Your task to perform on an android device: clear history in the chrome app Image 0: 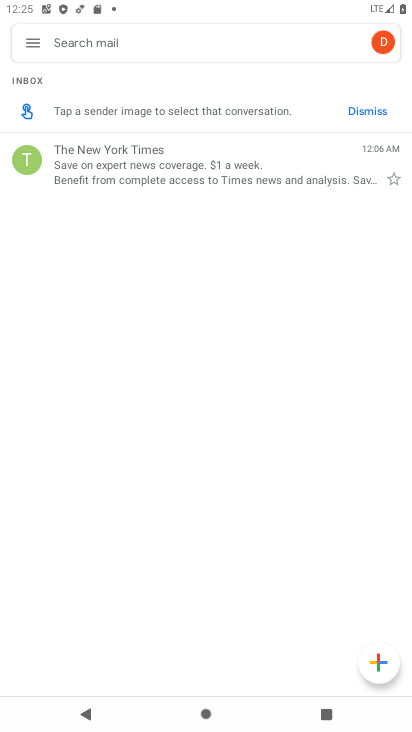
Step 0: press home button
Your task to perform on an android device: clear history in the chrome app Image 1: 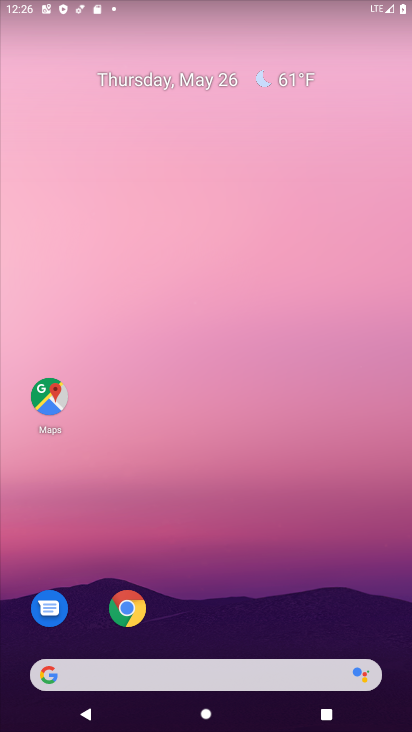
Step 1: click (126, 610)
Your task to perform on an android device: clear history in the chrome app Image 2: 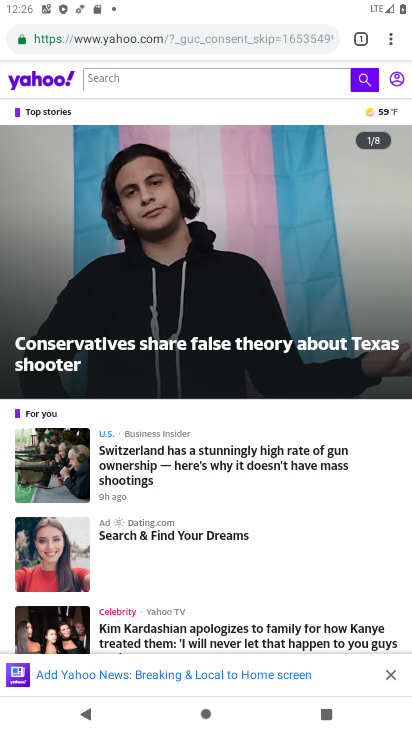
Step 2: click (394, 45)
Your task to perform on an android device: clear history in the chrome app Image 3: 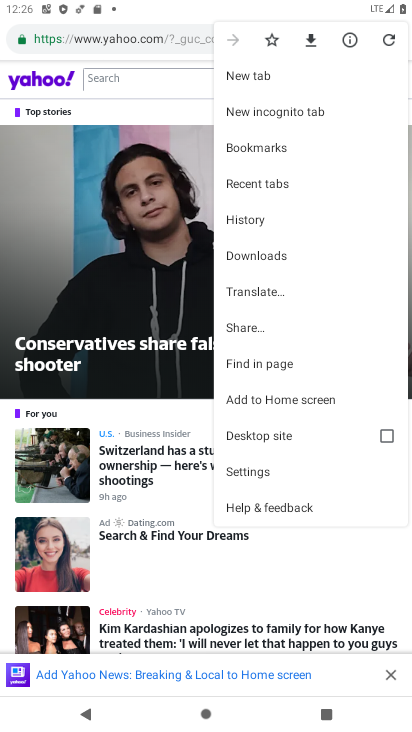
Step 3: click (254, 218)
Your task to perform on an android device: clear history in the chrome app Image 4: 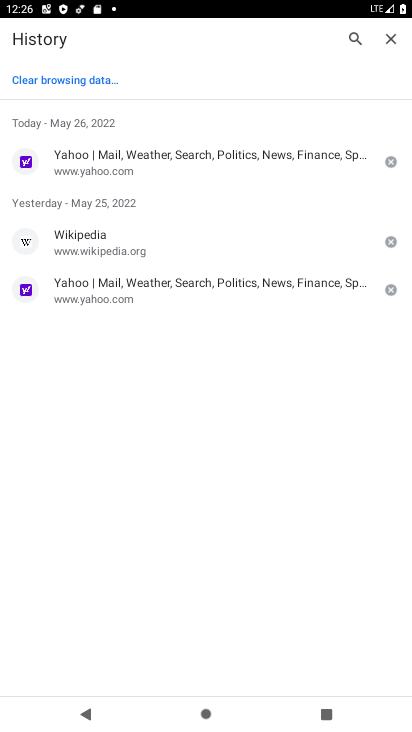
Step 4: click (64, 83)
Your task to perform on an android device: clear history in the chrome app Image 5: 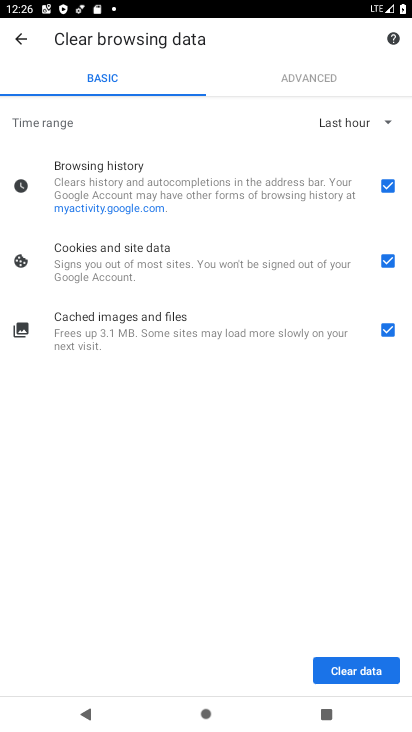
Step 5: click (386, 326)
Your task to perform on an android device: clear history in the chrome app Image 6: 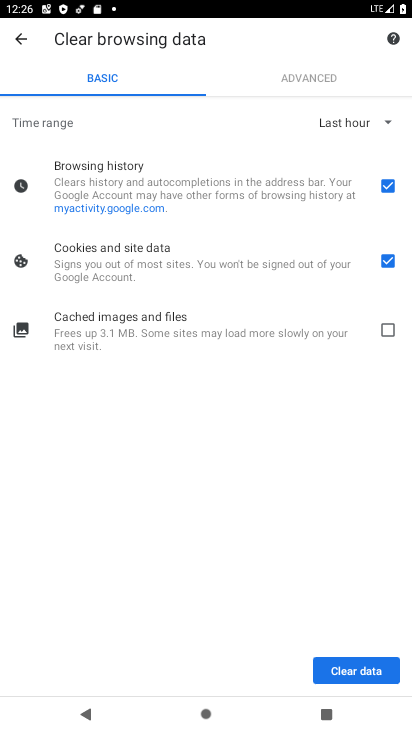
Step 6: click (387, 249)
Your task to perform on an android device: clear history in the chrome app Image 7: 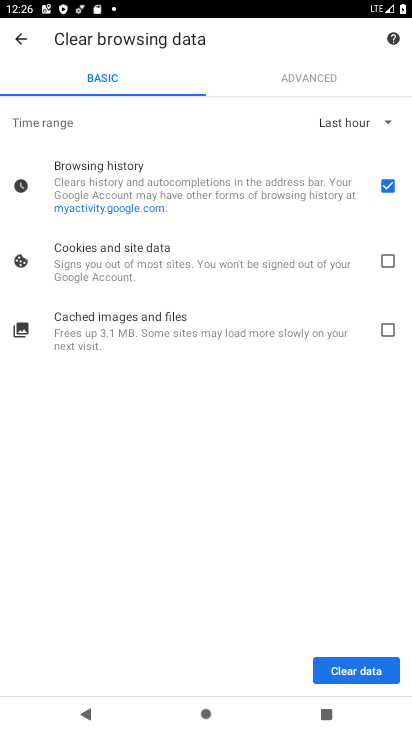
Step 7: click (350, 676)
Your task to perform on an android device: clear history in the chrome app Image 8: 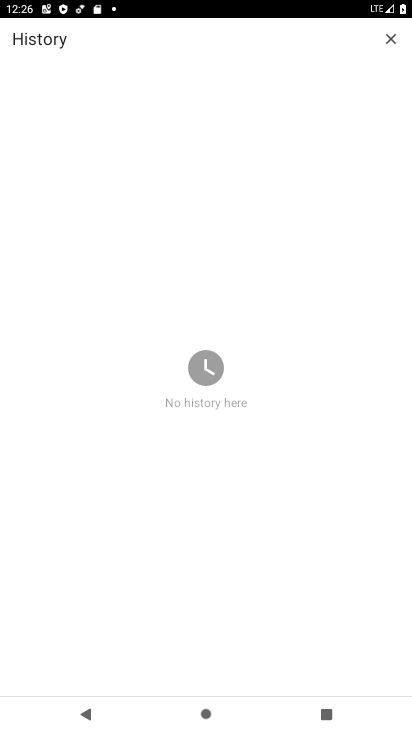
Step 8: task complete